Your task to perform on an android device: set an alarm Image 0: 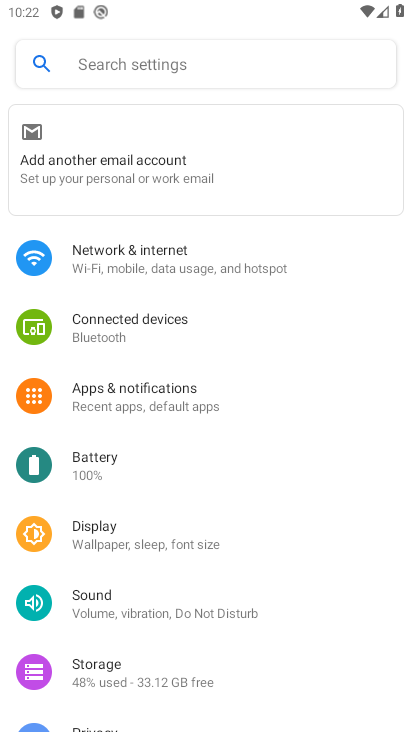
Step 0: press home button
Your task to perform on an android device: set an alarm Image 1: 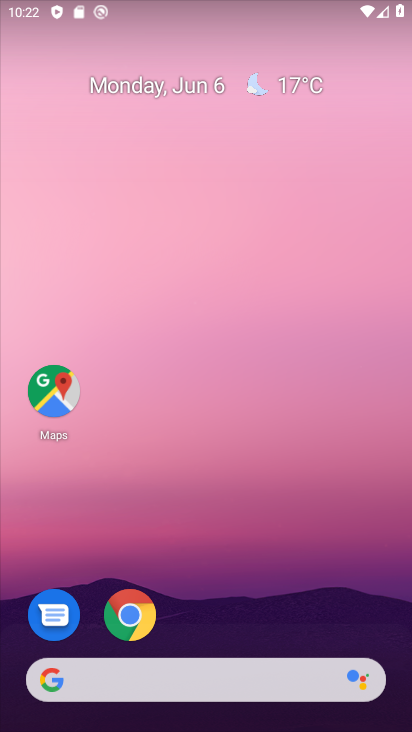
Step 1: drag from (223, 645) to (335, 179)
Your task to perform on an android device: set an alarm Image 2: 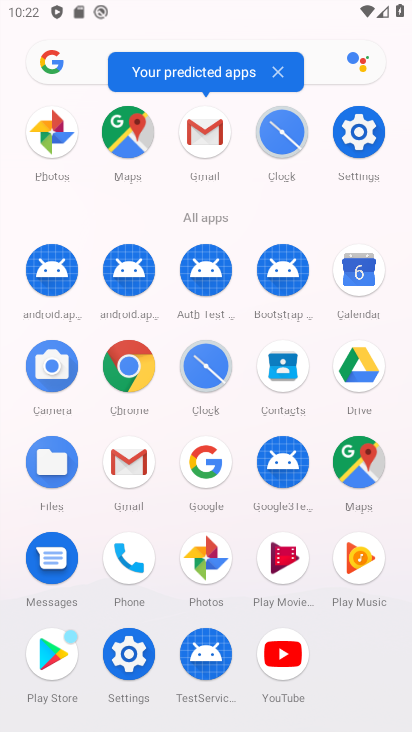
Step 2: click (216, 358)
Your task to perform on an android device: set an alarm Image 3: 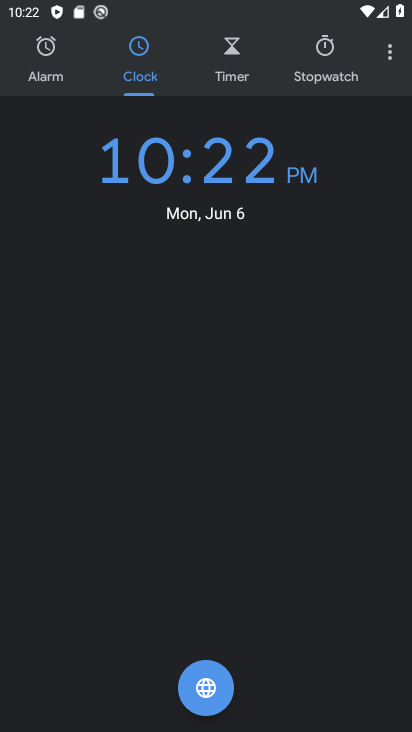
Step 3: click (72, 69)
Your task to perform on an android device: set an alarm Image 4: 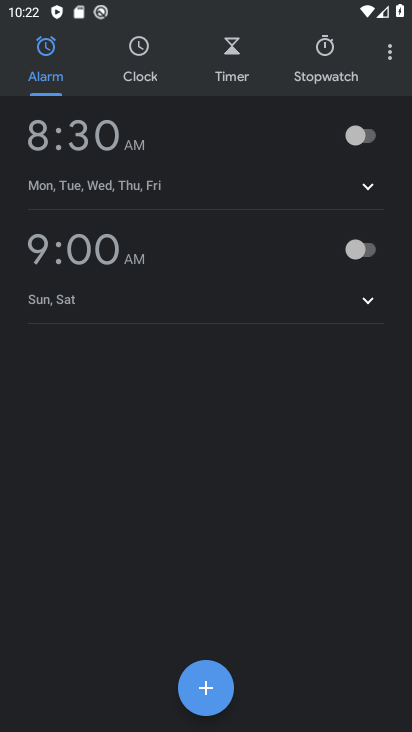
Step 4: click (206, 685)
Your task to perform on an android device: set an alarm Image 5: 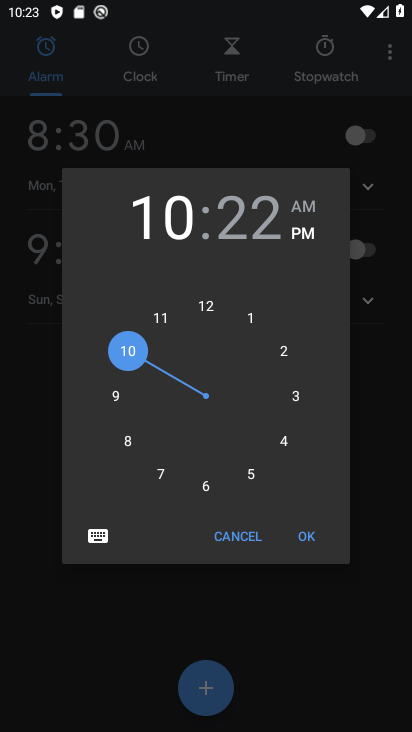
Step 5: click (173, 322)
Your task to perform on an android device: set an alarm Image 6: 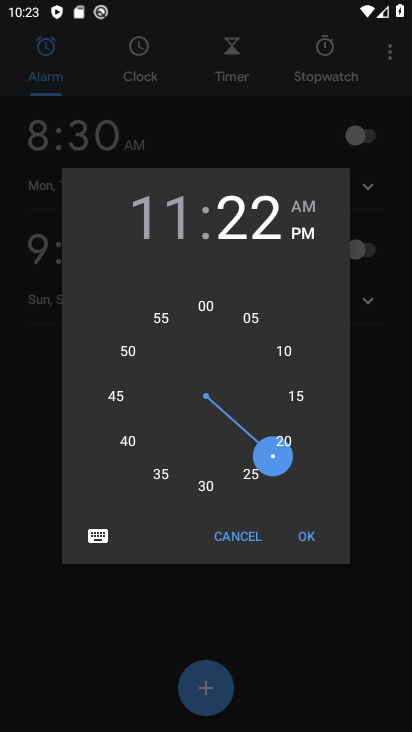
Step 6: click (286, 363)
Your task to perform on an android device: set an alarm Image 7: 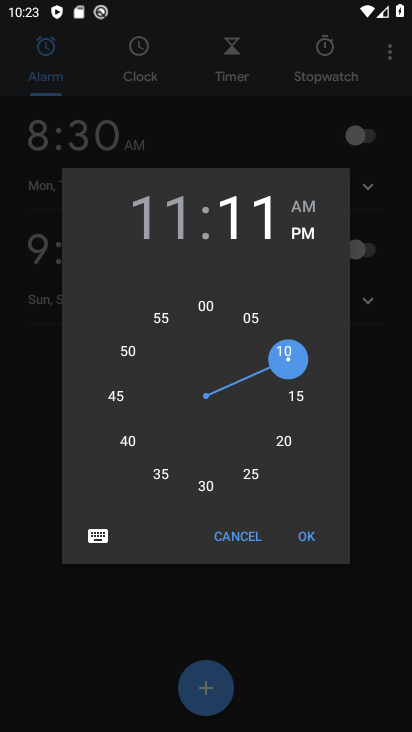
Step 7: click (289, 361)
Your task to perform on an android device: set an alarm Image 8: 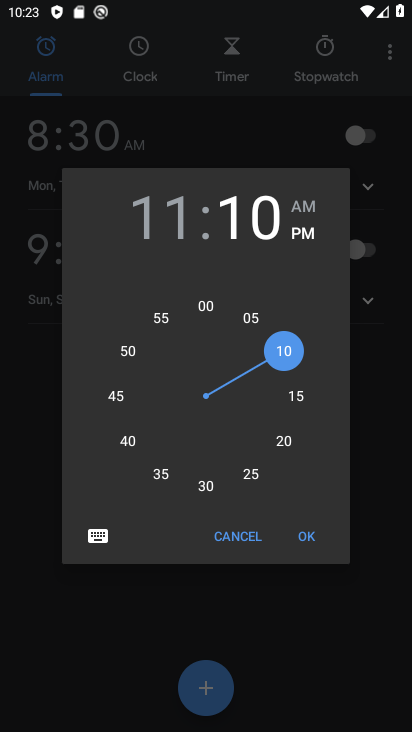
Step 8: click (311, 542)
Your task to perform on an android device: set an alarm Image 9: 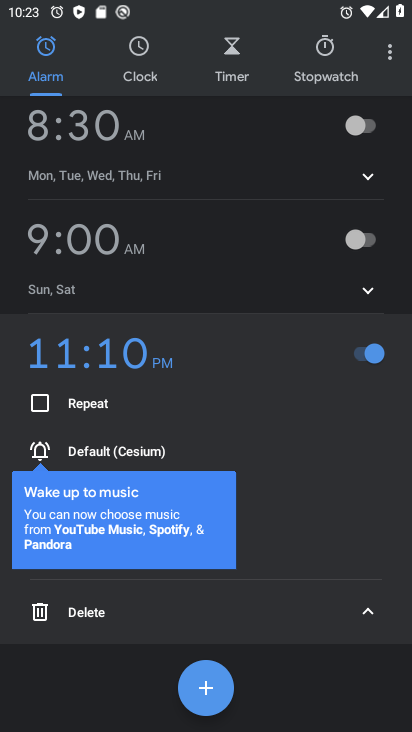
Step 9: task complete